Your task to perform on an android device: When is my next appointment? Image 0: 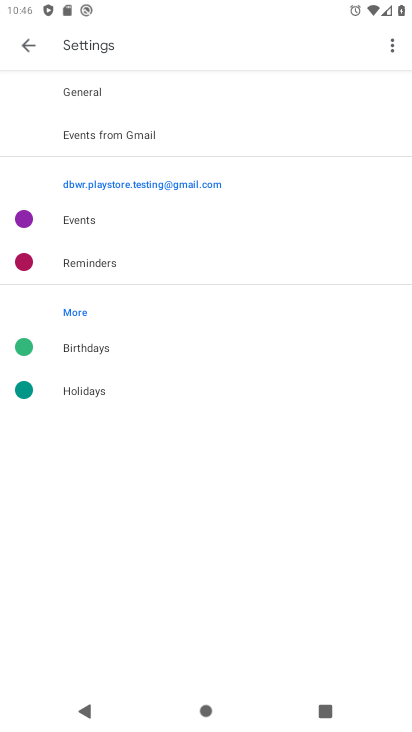
Step 0: press home button
Your task to perform on an android device: When is my next appointment? Image 1: 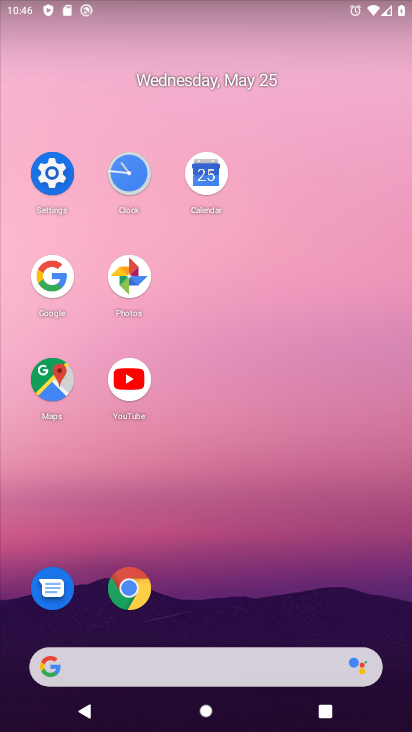
Step 1: click (218, 172)
Your task to perform on an android device: When is my next appointment? Image 2: 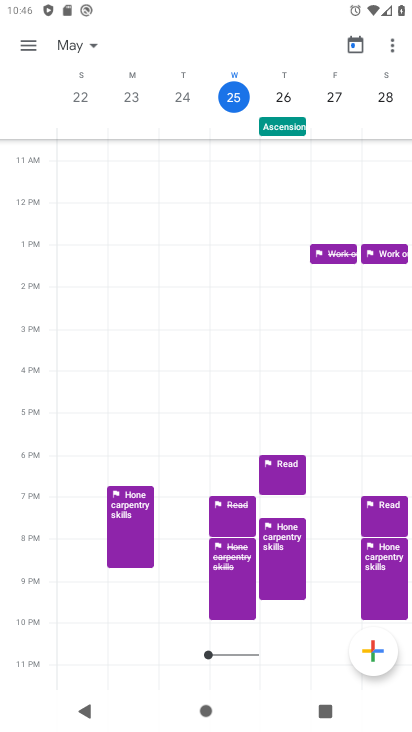
Step 2: click (337, 98)
Your task to perform on an android device: When is my next appointment? Image 3: 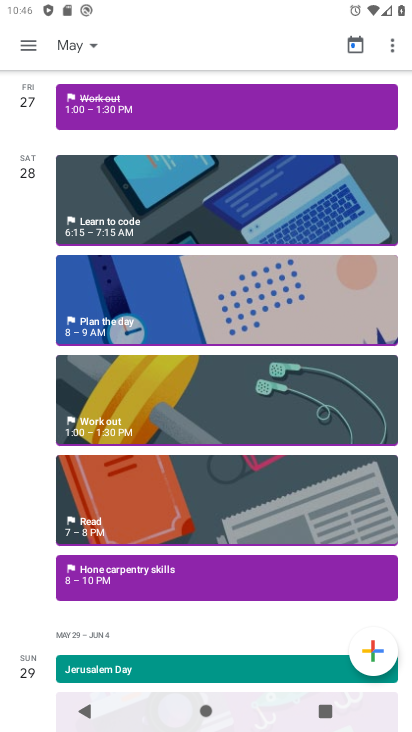
Step 3: task complete